Your task to perform on an android device: Add acer predator to the cart on target Image 0: 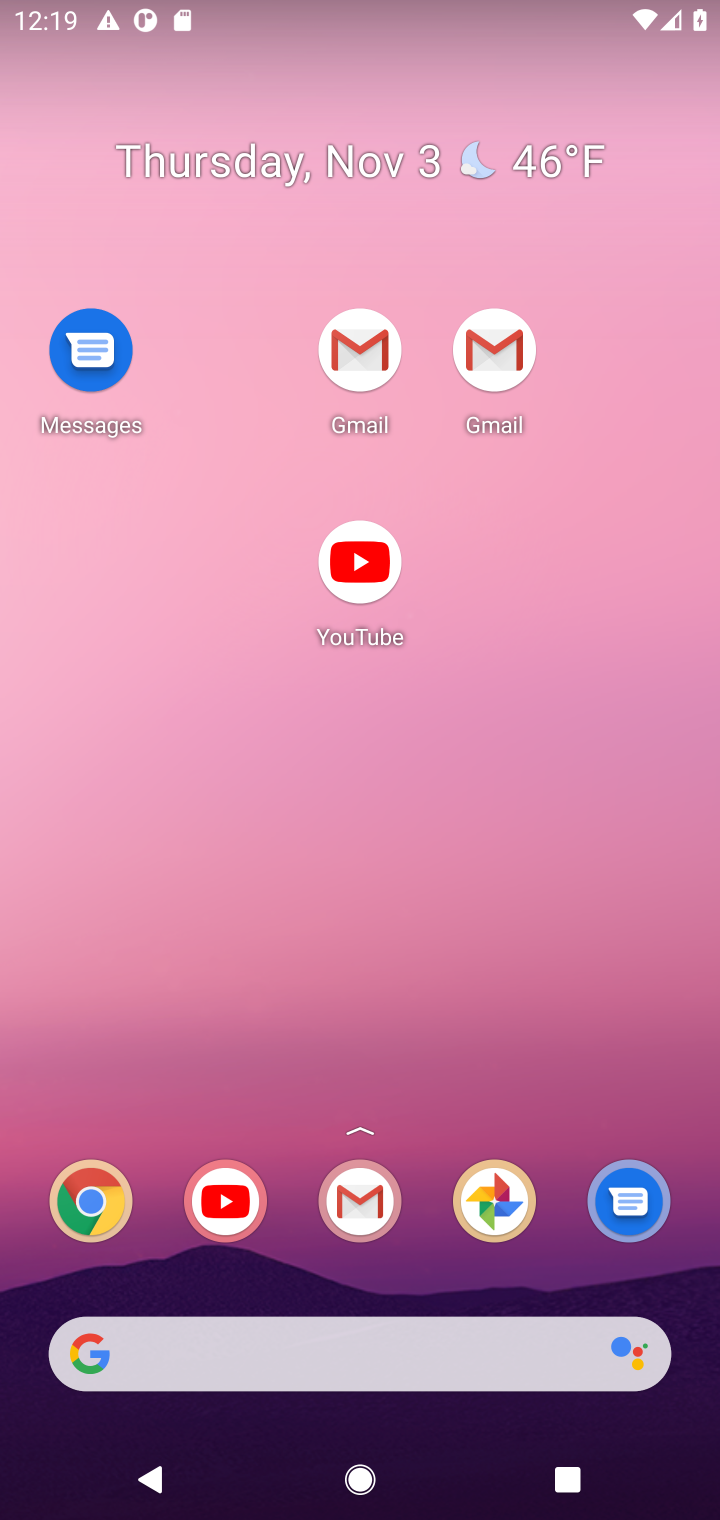
Step 0: drag from (296, 1218) to (228, 205)
Your task to perform on an android device: Add acer predator to the cart on target Image 1: 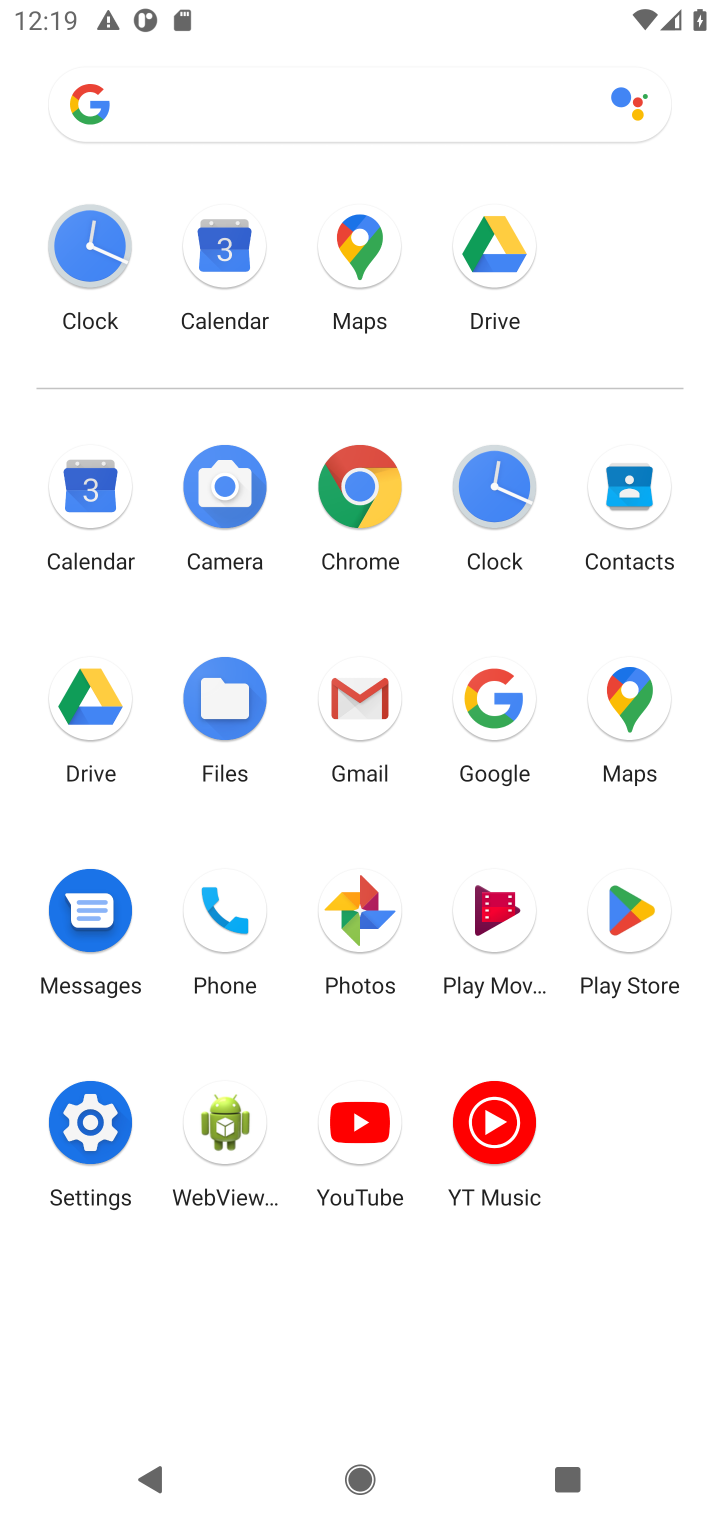
Step 1: click (361, 494)
Your task to perform on an android device: Add acer predator to the cart on target Image 2: 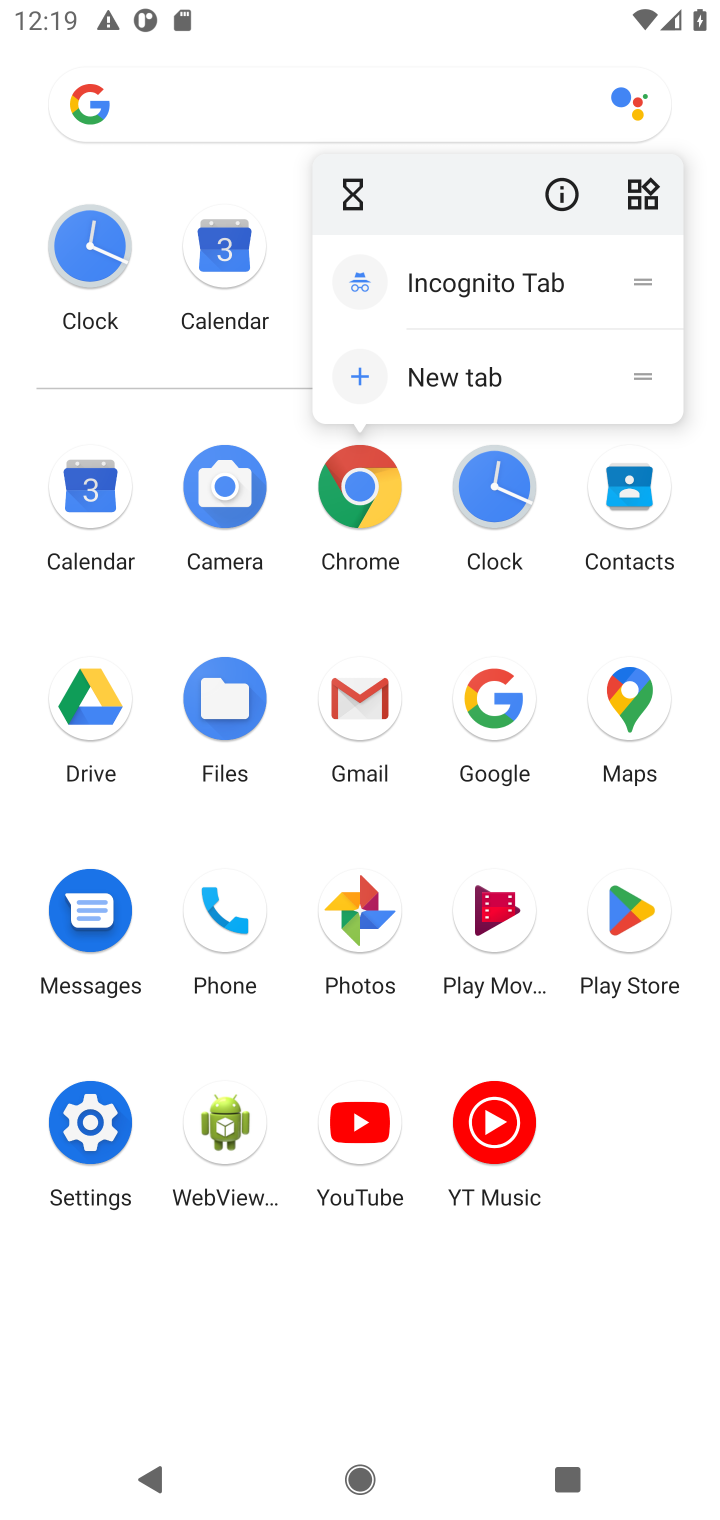
Step 2: click (361, 494)
Your task to perform on an android device: Add acer predator to the cart on target Image 3: 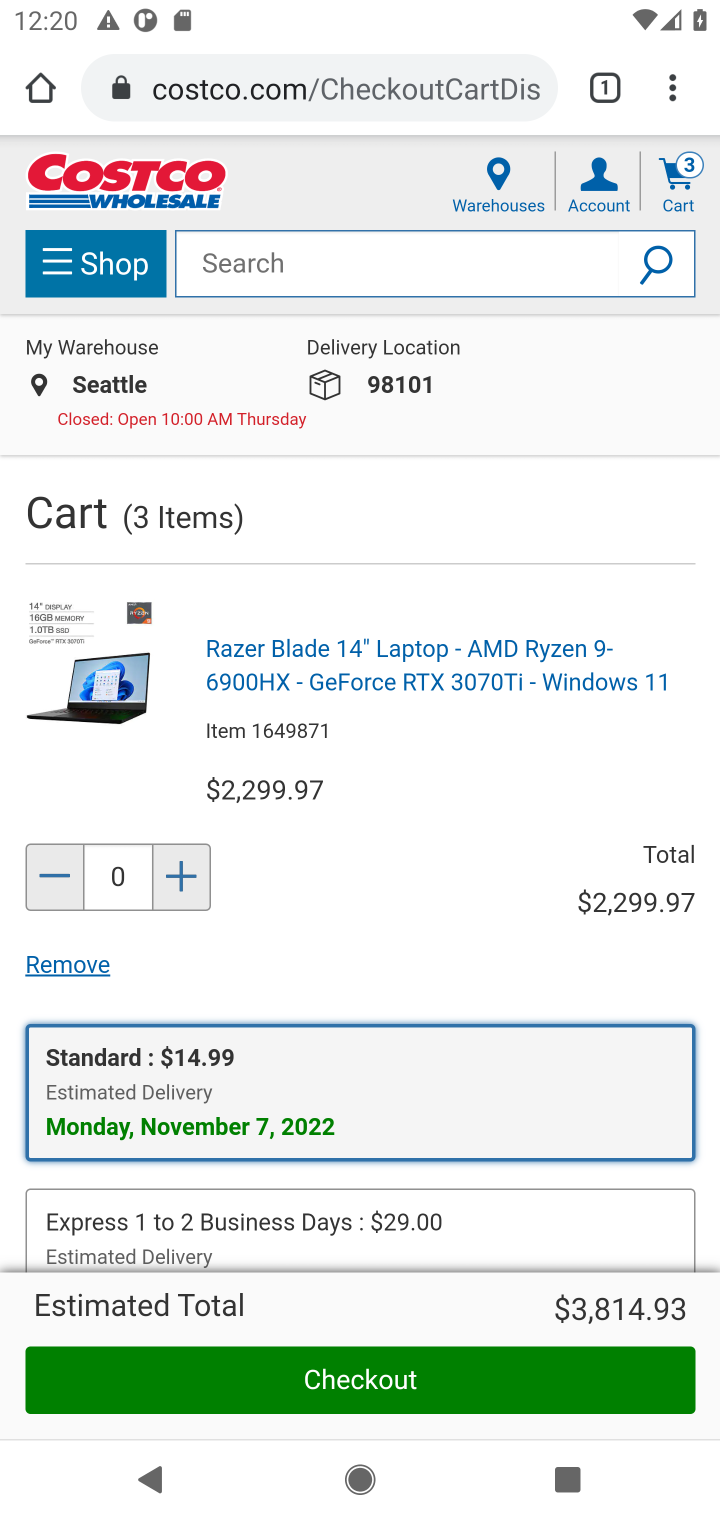
Step 3: click (265, 94)
Your task to perform on an android device: Add acer predator to the cart on target Image 4: 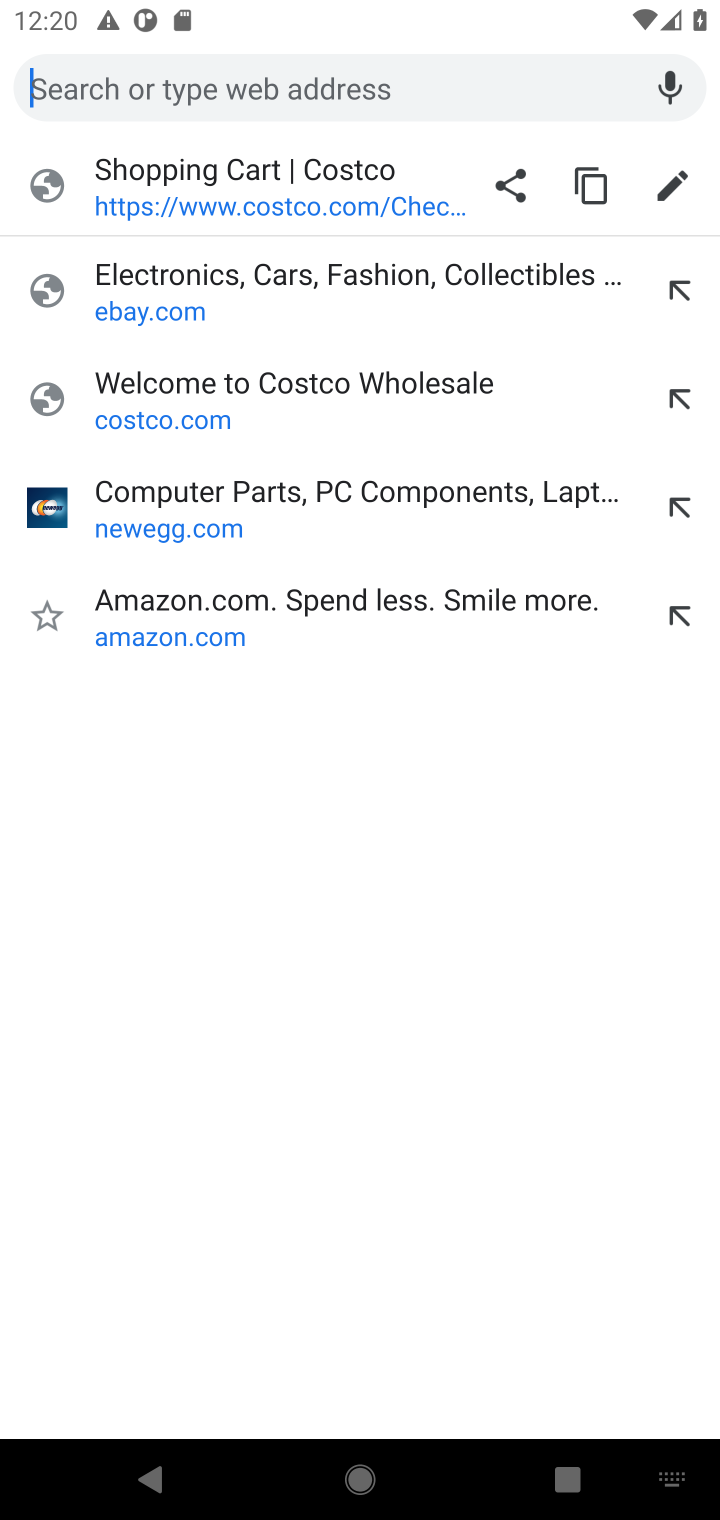
Step 4: type "target.com"
Your task to perform on an android device: Add acer predator to the cart on target Image 5: 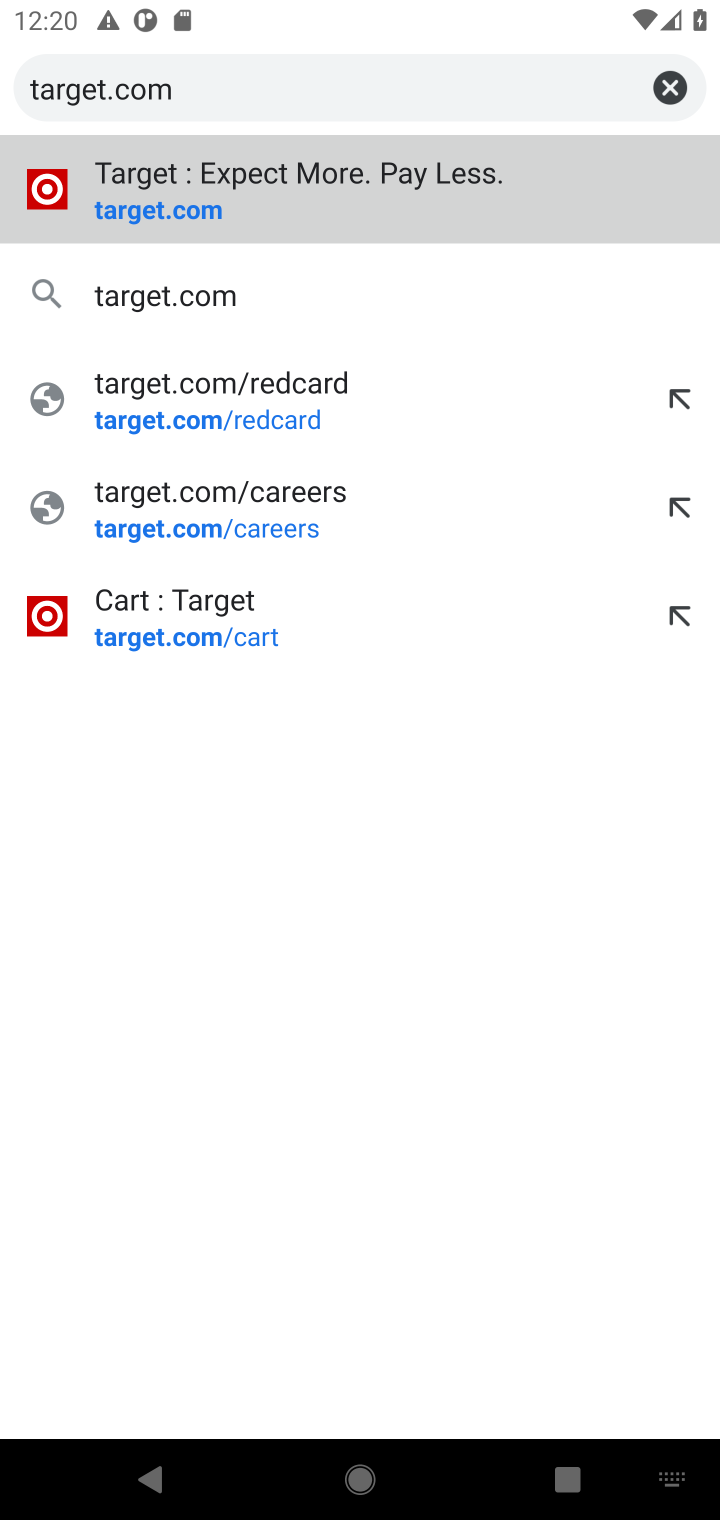
Step 5: press enter
Your task to perform on an android device: Add acer predator to the cart on target Image 6: 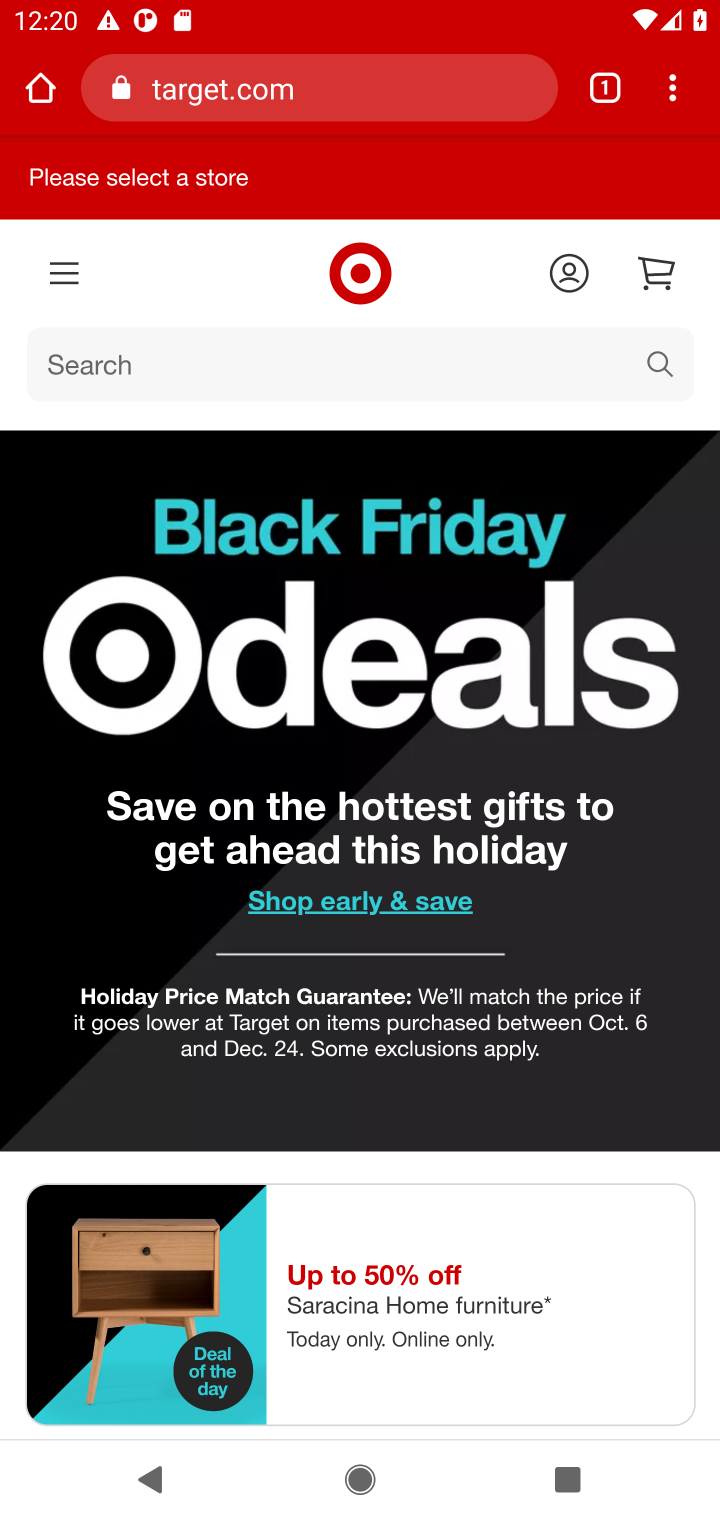
Step 6: click (336, 373)
Your task to perform on an android device: Add acer predator to the cart on target Image 7: 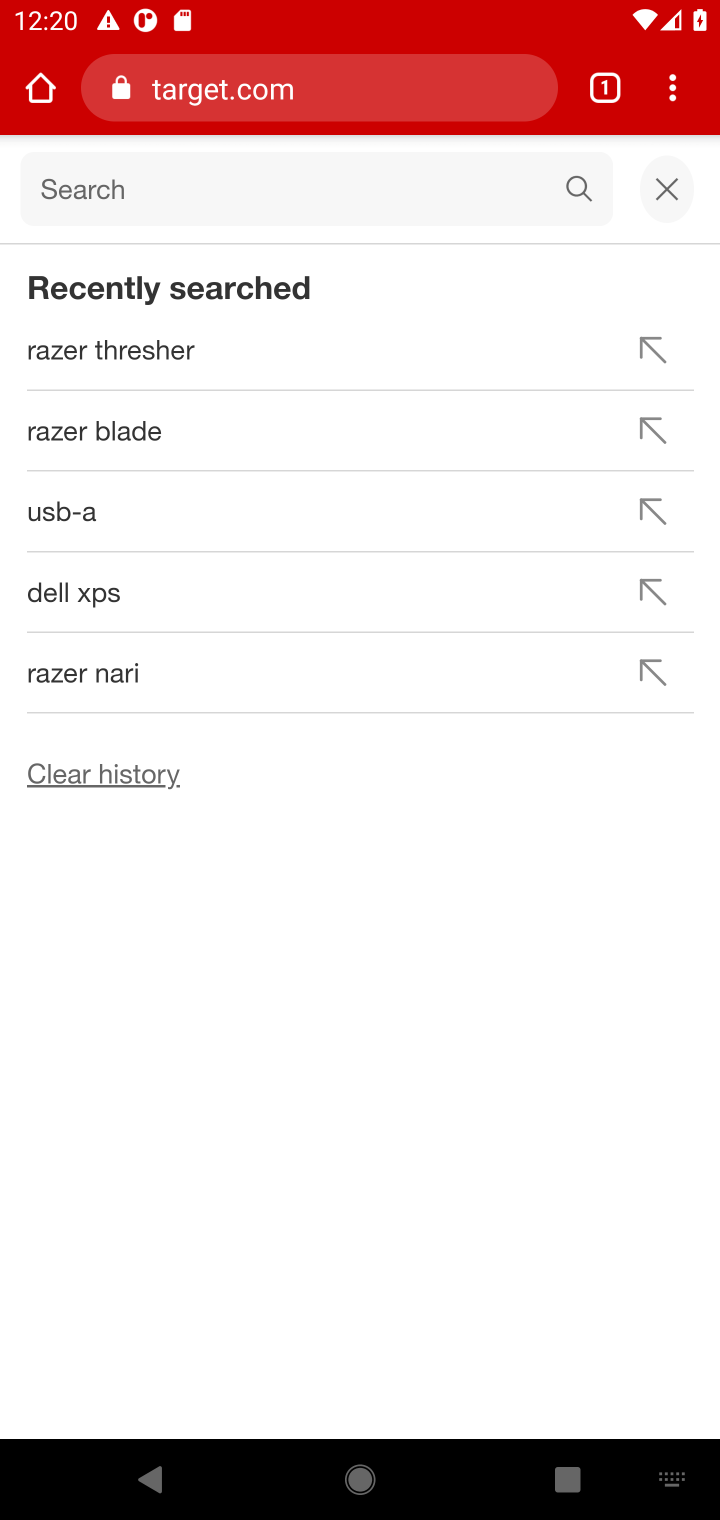
Step 7: type ""
Your task to perform on an android device: Add acer predator to the cart on target Image 8: 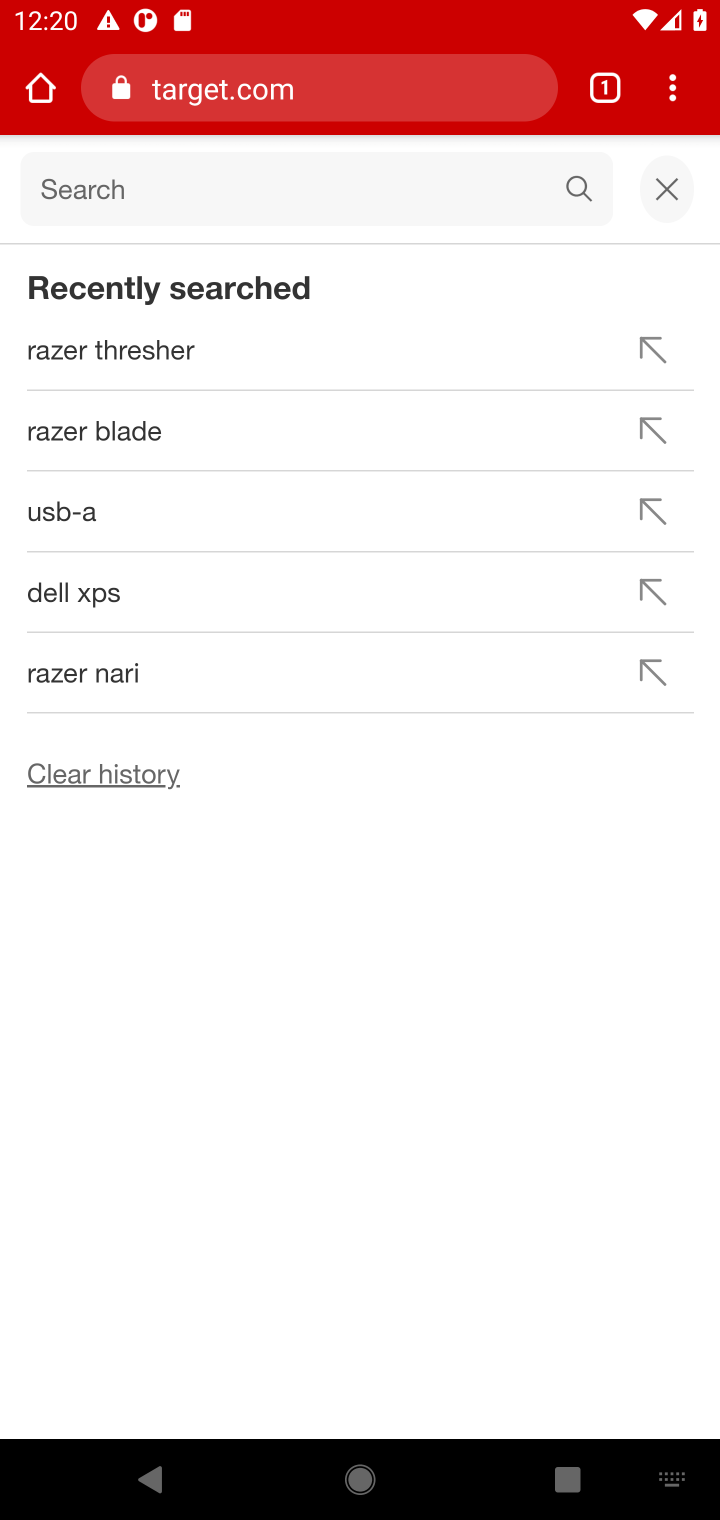
Step 8: click (166, 181)
Your task to perform on an android device: Add acer predator to the cart on target Image 9: 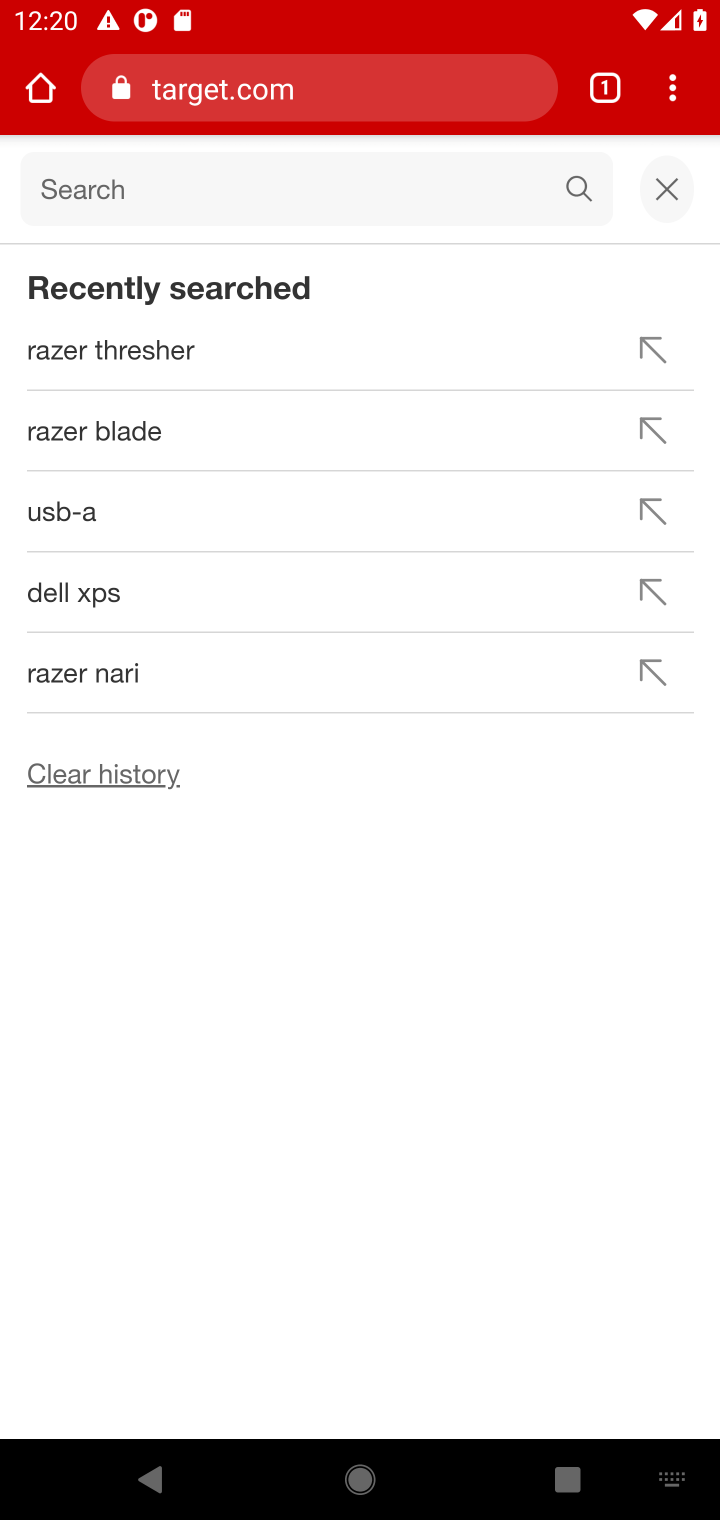
Step 9: type "acer predator"
Your task to perform on an android device: Add acer predator to the cart on target Image 10: 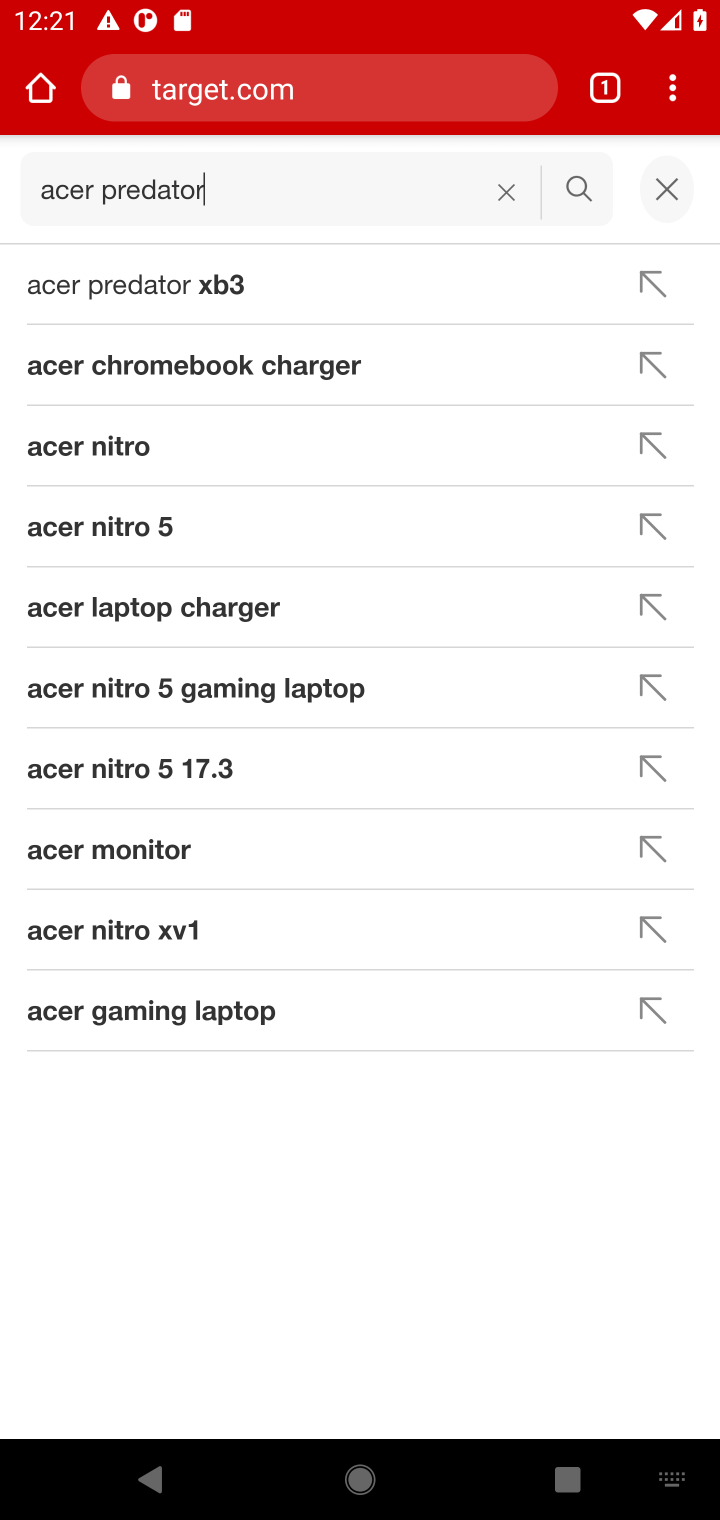
Step 10: press enter
Your task to perform on an android device: Add acer predator to the cart on target Image 11: 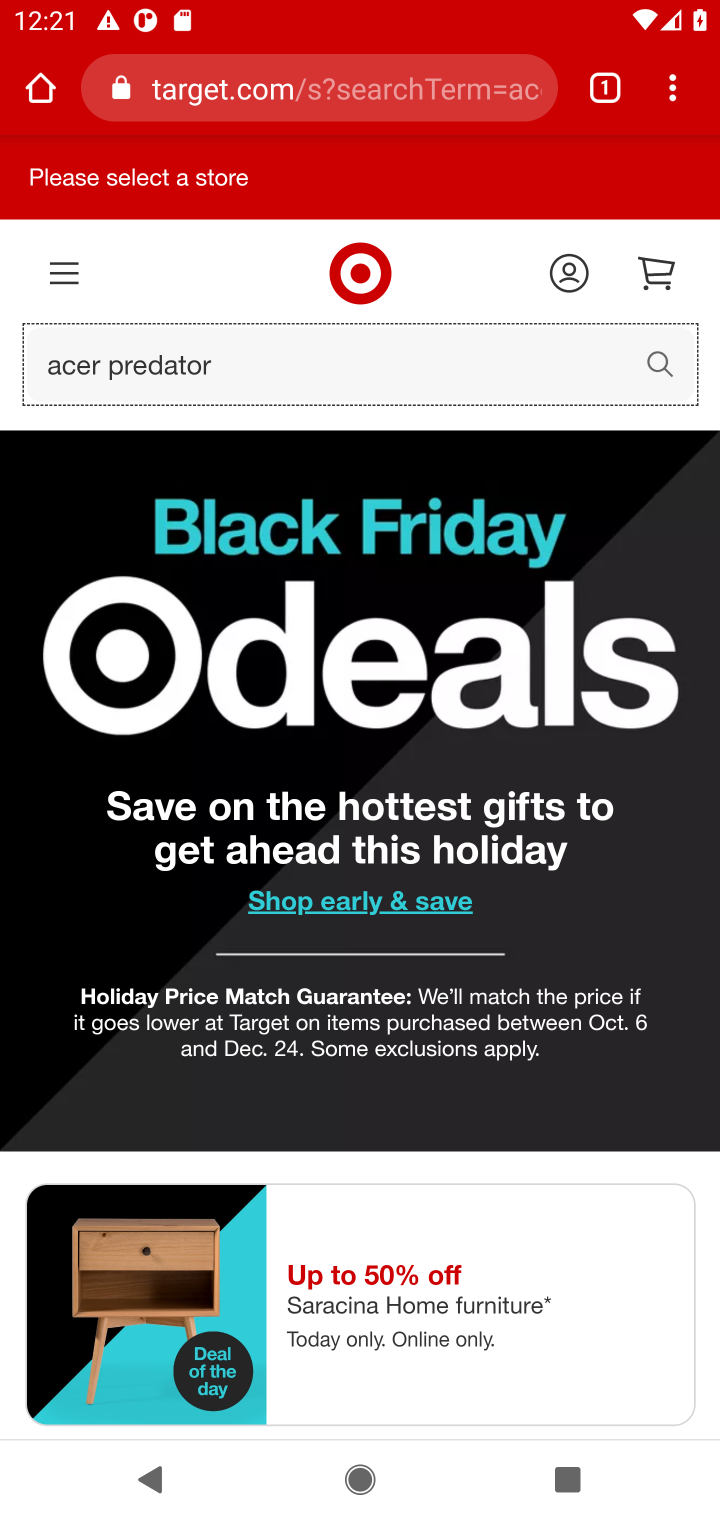
Step 11: press enter
Your task to perform on an android device: Add acer predator to the cart on target Image 12: 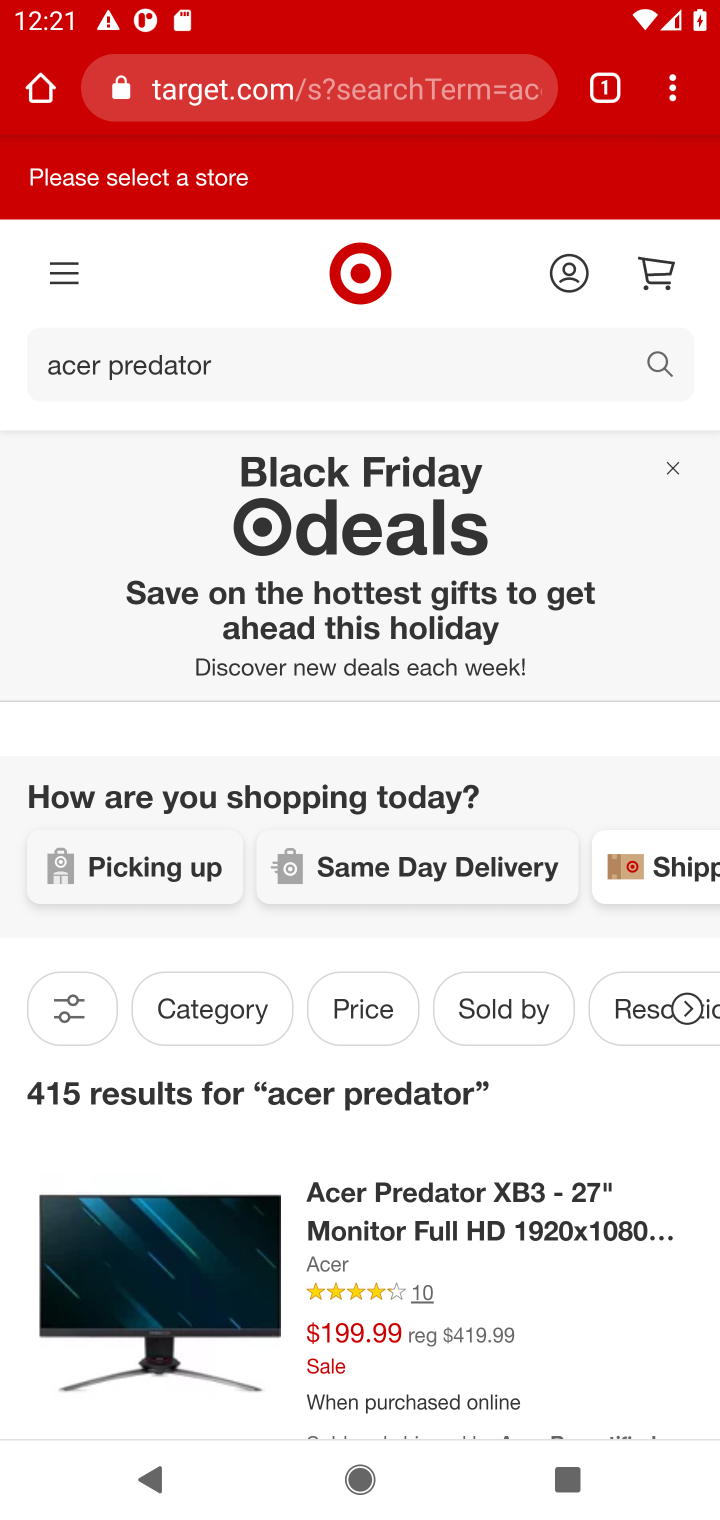
Step 12: drag from (506, 1346) to (326, 558)
Your task to perform on an android device: Add acer predator to the cart on target Image 13: 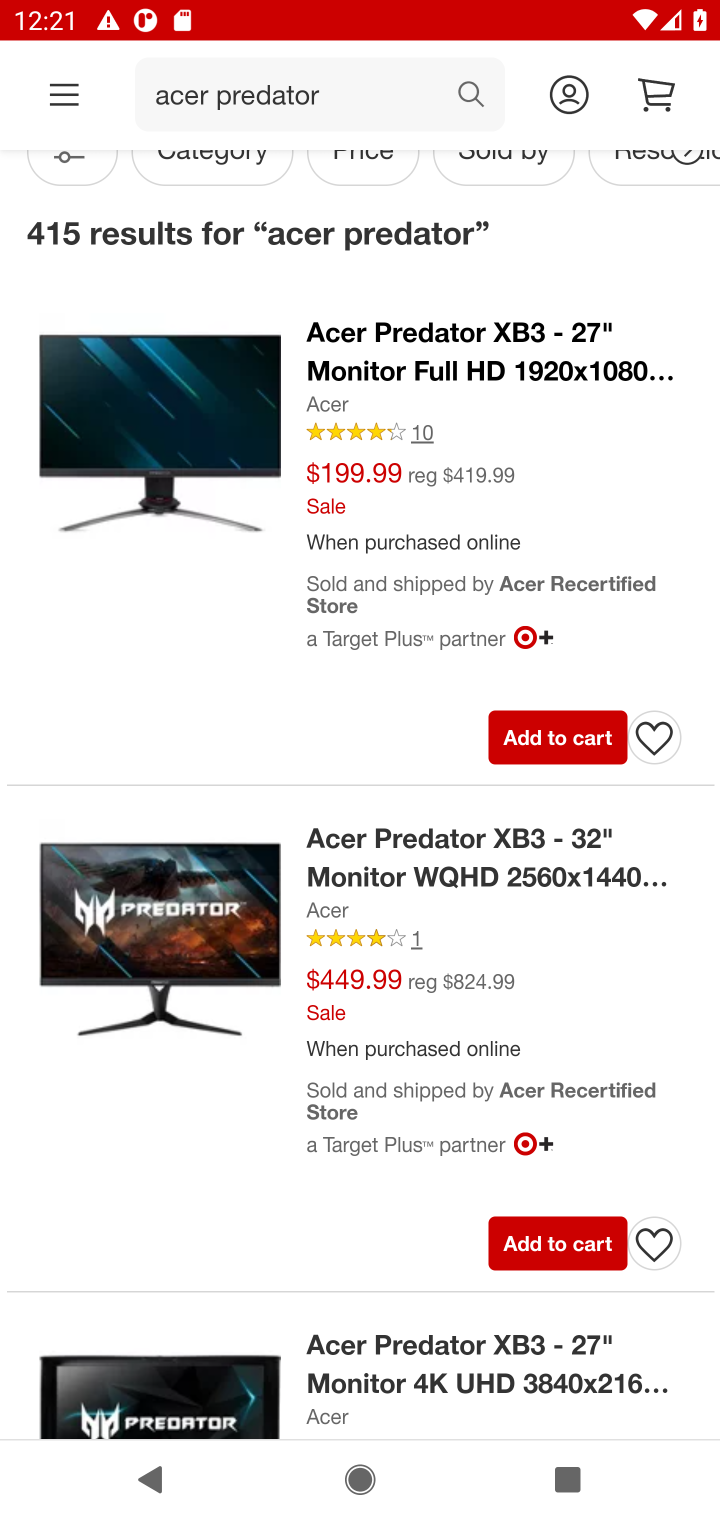
Step 13: click (567, 738)
Your task to perform on an android device: Add acer predator to the cart on target Image 14: 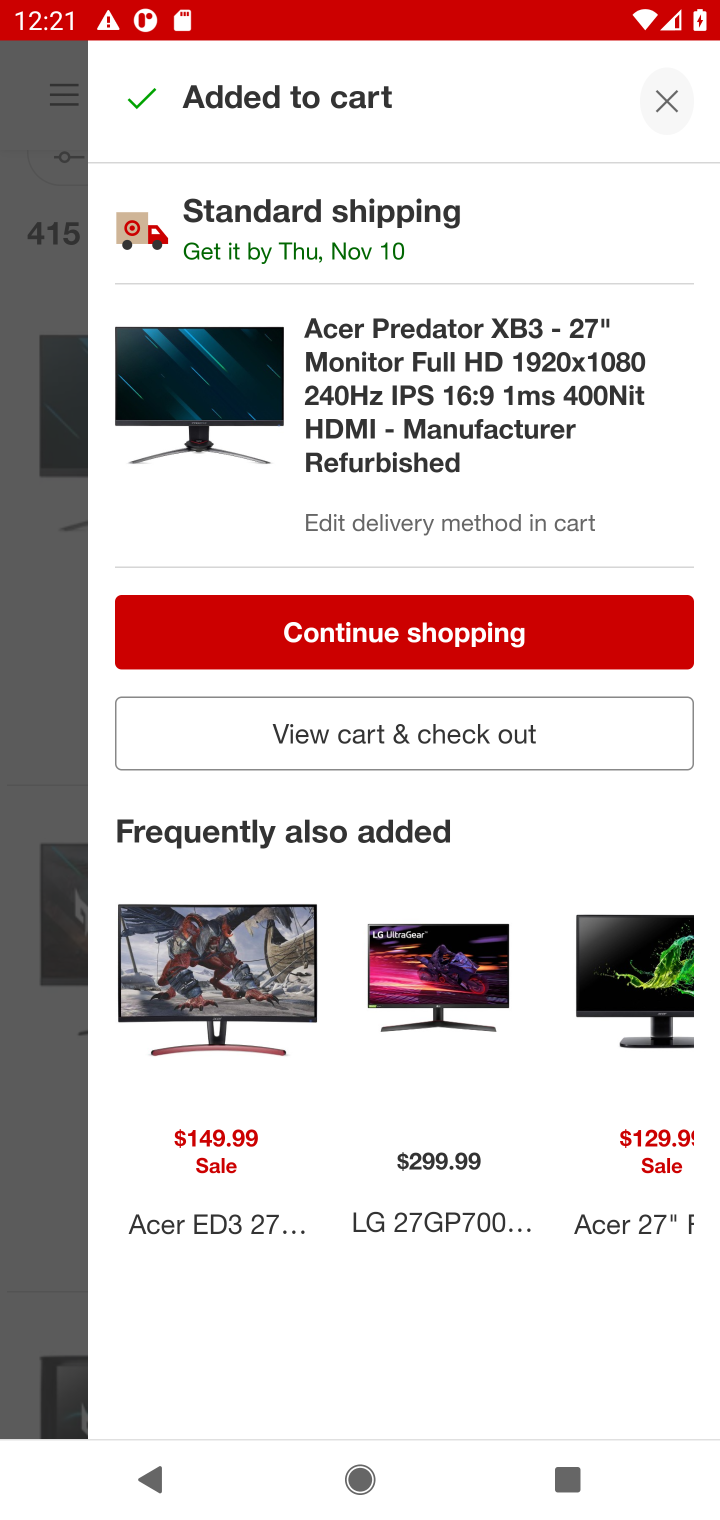
Step 14: task complete